Your task to perform on an android device: toggle pop-ups in chrome Image 0: 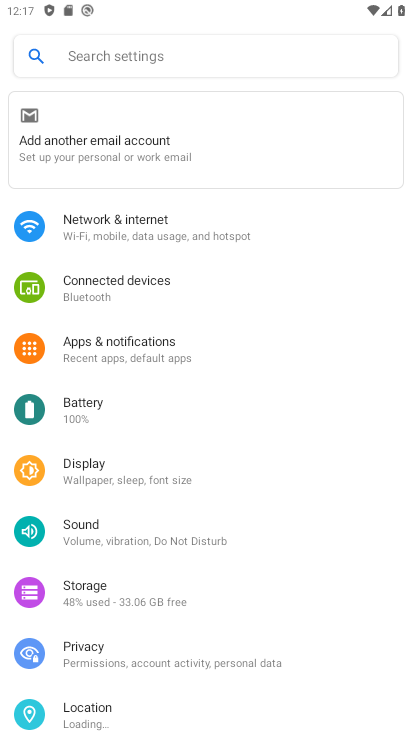
Step 0: press home button
Your task to perform on an android device: toggle pop-ups in chrome Image 1: 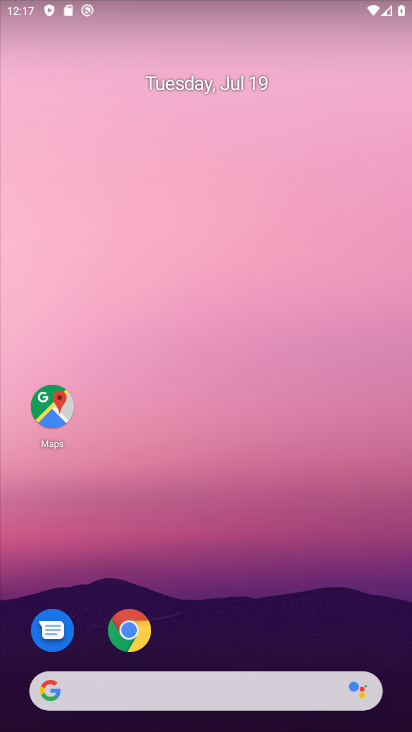
Step 1: click (138, 624)
Your task to perform on an android device: toggle pop-ups in chrome Image 2: 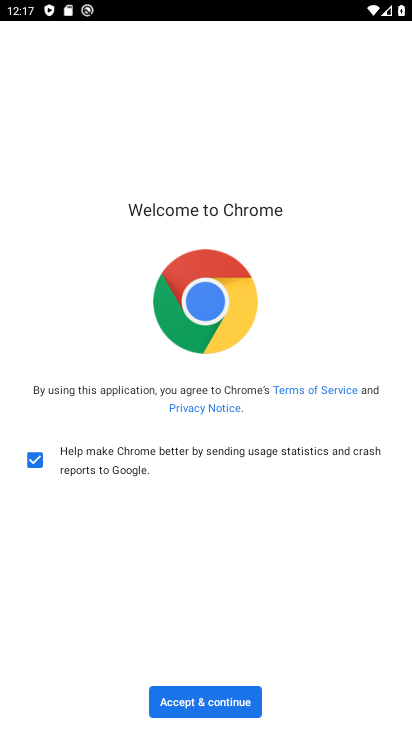
Step 2: click (194, 699)
Your task to perform on an android device: toggle pop-ups in chrome Image 3: 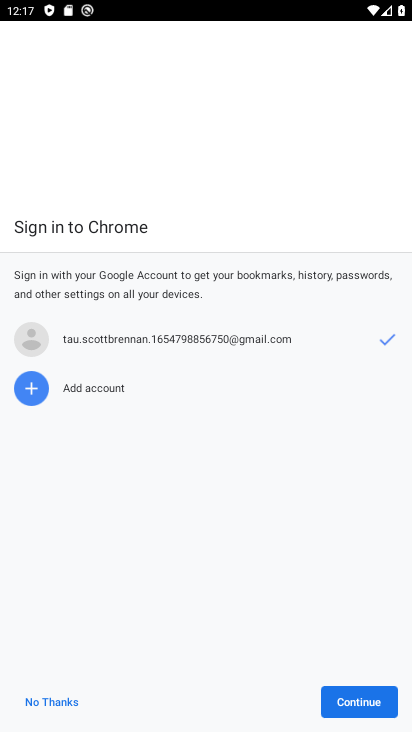
Step 3: click (341, 695)
Your task to perform on an android device: toggle pop-ups in chrome Image 4: 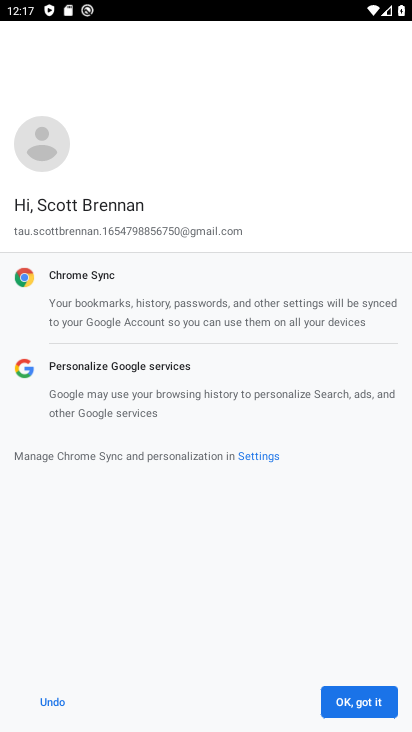
Step 4: click (358, 705)
Your task to perform on an android device: toggle pop-ups in chrome Image 5: 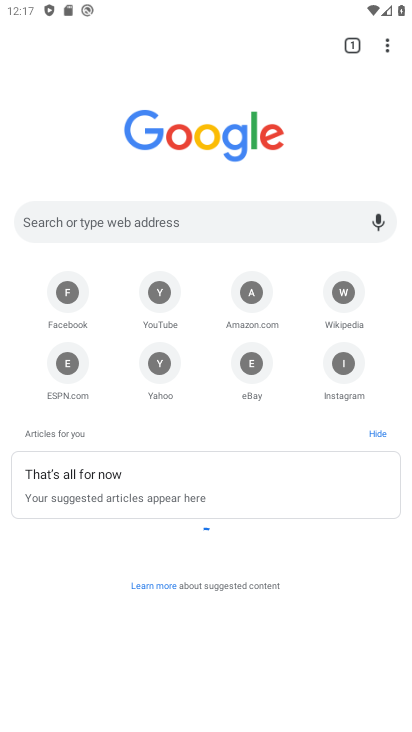
Step 5: drag from (383, 46) to (238, 386)
Your task to perform on an android device: toggle pop-ups in chrome Image 6: 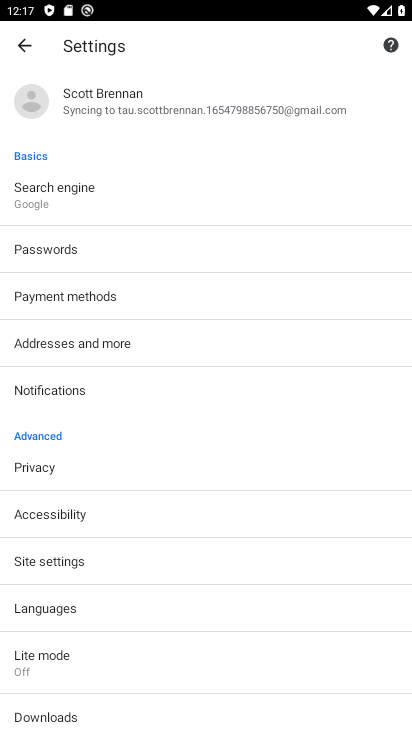
Step 6: click (63, 562)
Your task to perform on an android device: toggle pop-ups in chrome Image 7: 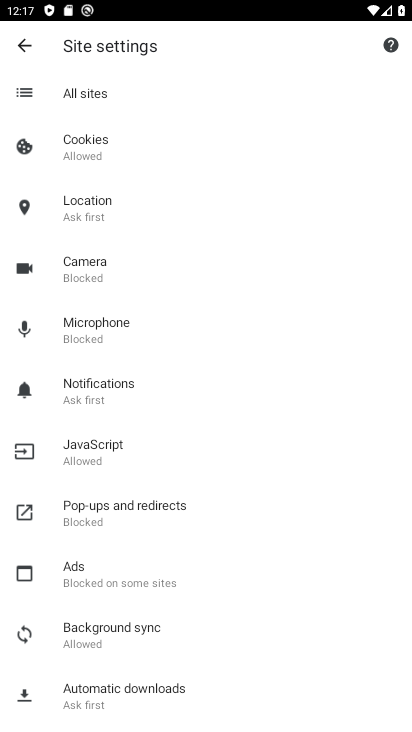
Step 7: click (123, 505)
Your task to perform on an android device: toggle pop-ups in chrome Image 8: 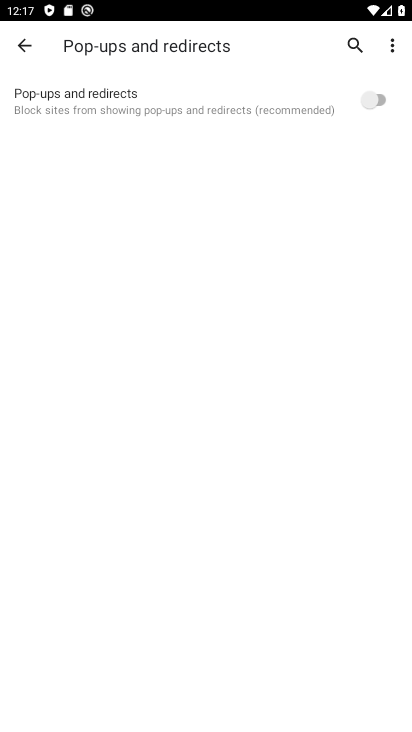
Step 8: click (379, 101)
Your task to perform on an android device: toggle pop-ups in chrome Image 9: 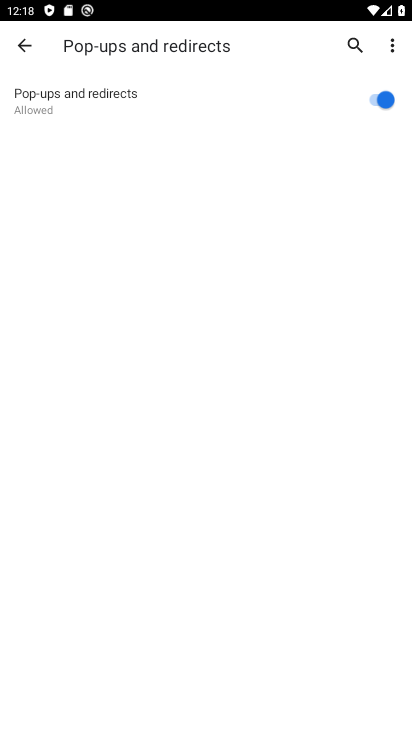
Step 9: task complete